Your task to perform on an android device: turn on improve location accuracy Image 0: 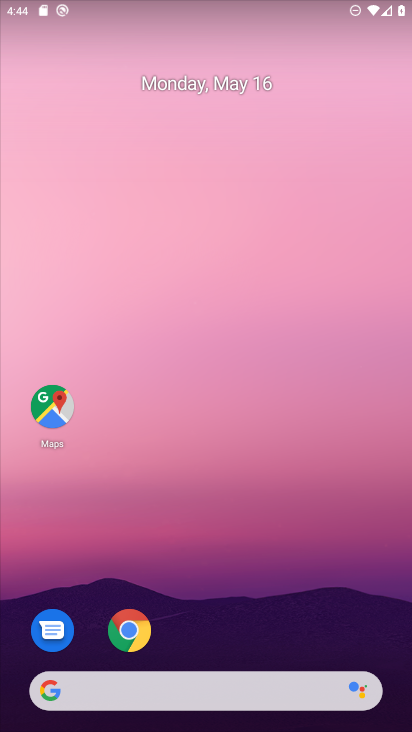
Step 0: press home button
Your task to perform on an android device: turn on improve location accuracy Image 1: 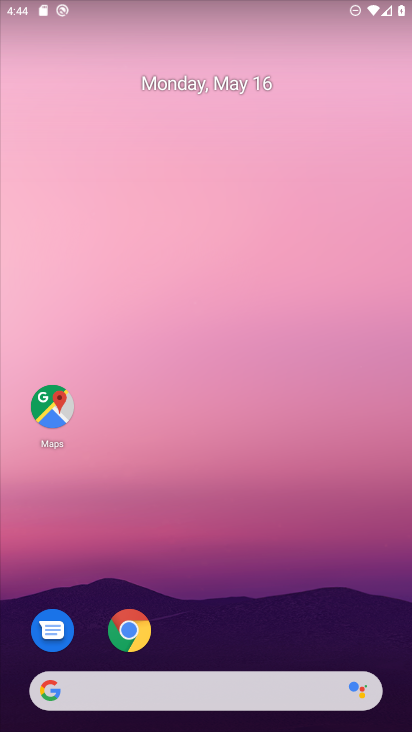
Step 1: drag from (346, 561) to (360, 21)
Your task to perform on an android device: turn on improve location accuracy Image 2: 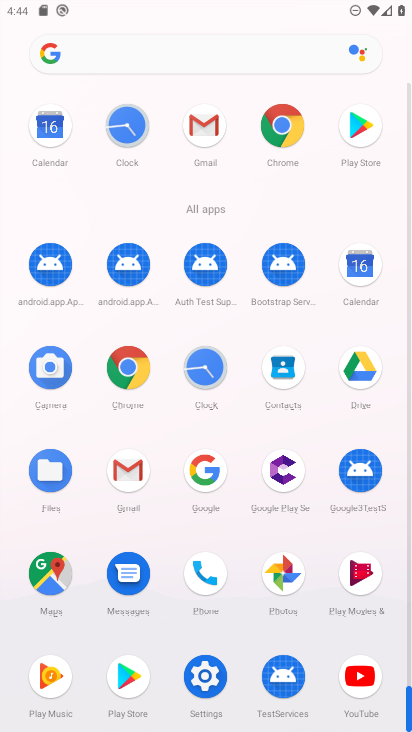
Step 2: click (208, 697)
Your task to perform on an android device: turn on improve location accuracy Image 3: 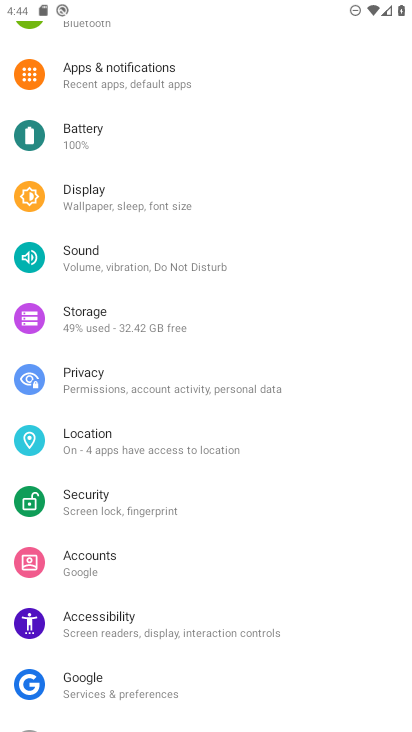
Step 3: drag from (214, 686) to (249, 529)
Your task to perform on an android device: turn on improve location accuracy Image 4: 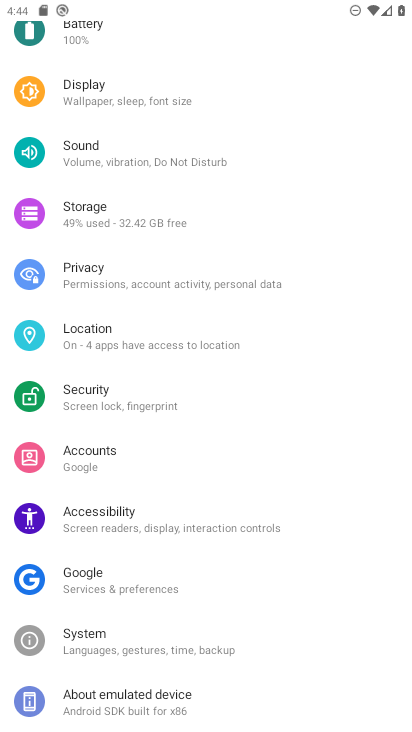
Step 4: click (123, 333)
Your task to perform on an android device: turn on improve location accuracy Image 5: 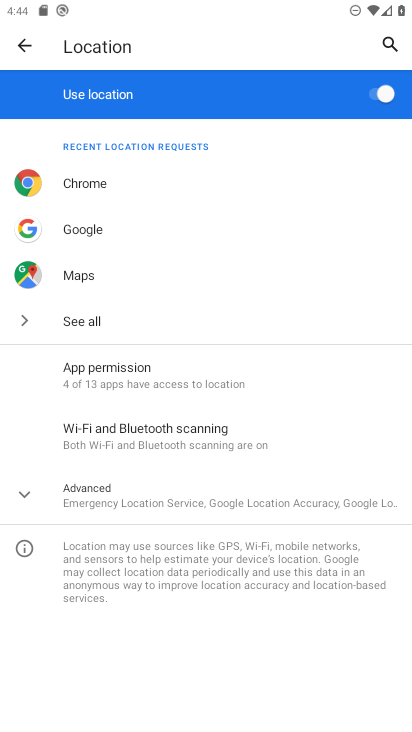
Step 5: click (176, 503)
Your task to perform on an android device: turn on improve location accuracy Image 6: 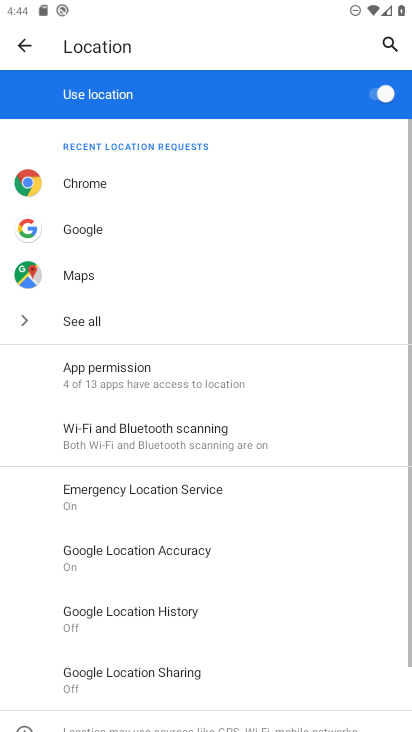
Step 6: click (163, 570)
Your task to perform on an android device: turn on improve location accuracy Image 7: 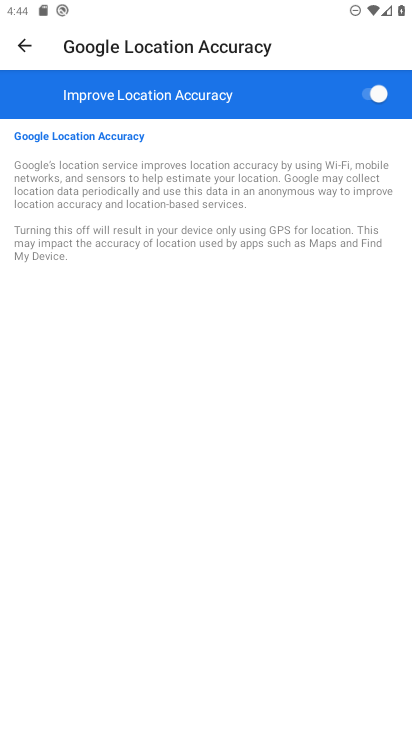
Step 7: task complete